Your task to perform on an android device: check google app version Image 0: 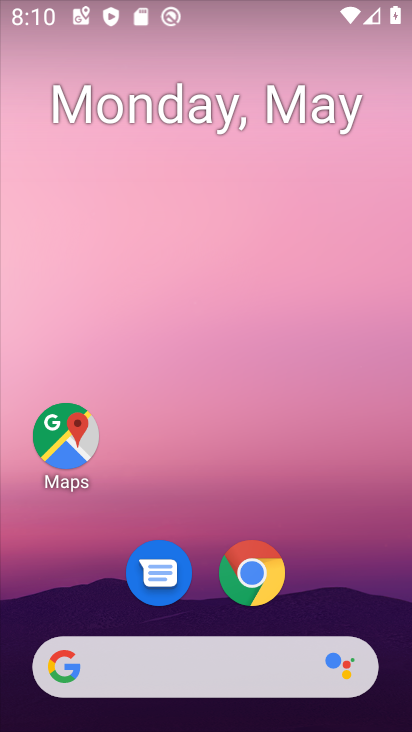
Step 0: click (251, 585)
Your task to perform on an android device: check google app version Image 1: 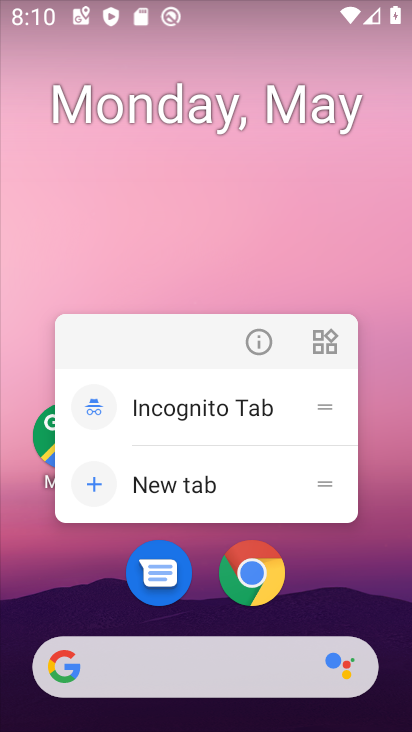
Step 1: click (263, 350)
Your task to perform on an android device: check google app version Image 2: 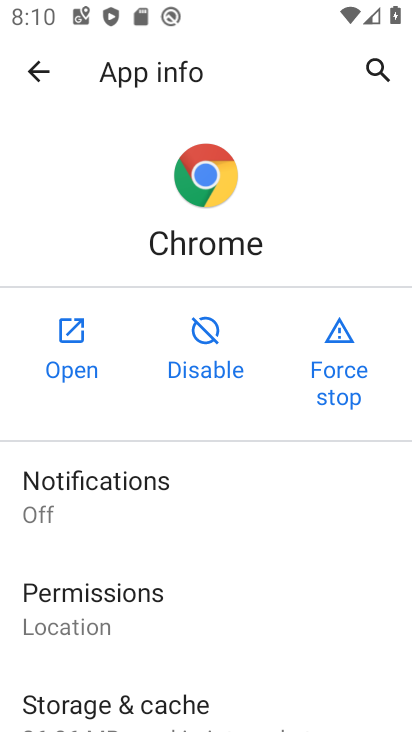
Step 2: task complete